Your task to perform on an android device: What's the weather going to be tomorrow? Image 0: 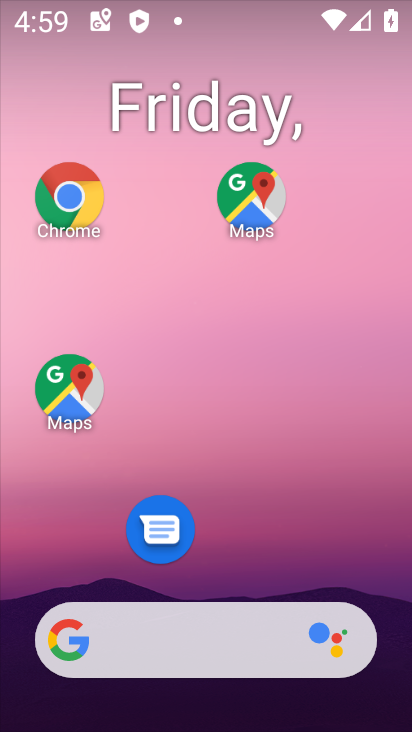
Step 0: click (203, 641)
Your task to perform on an android device: What's the weather going to be tomorrow? Image 1: 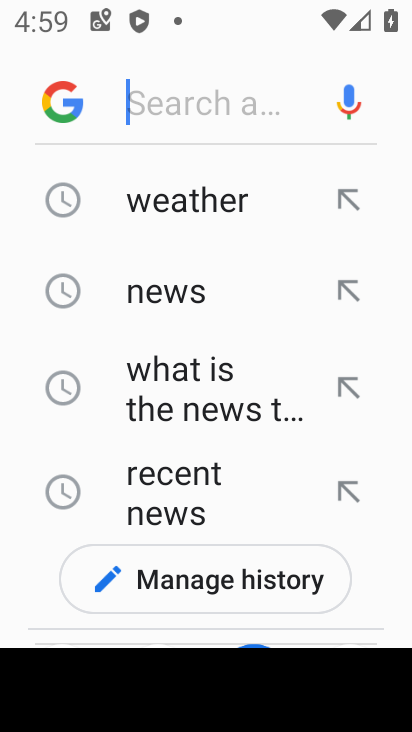
Step 1: click (212, 202)
Your task to perform on an android device: What's the weather going to be tomorrow? Image 2: 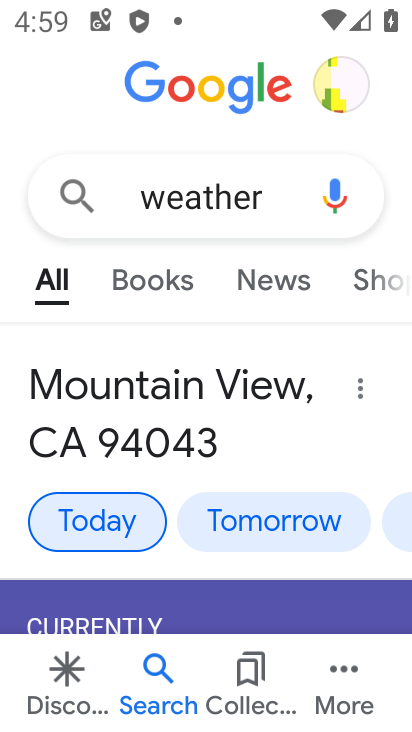
Step 2: drag from (299, 590) to (327, 305)
Your task to perform on an android device: What's the weather going to be tomorrow? Image 3: 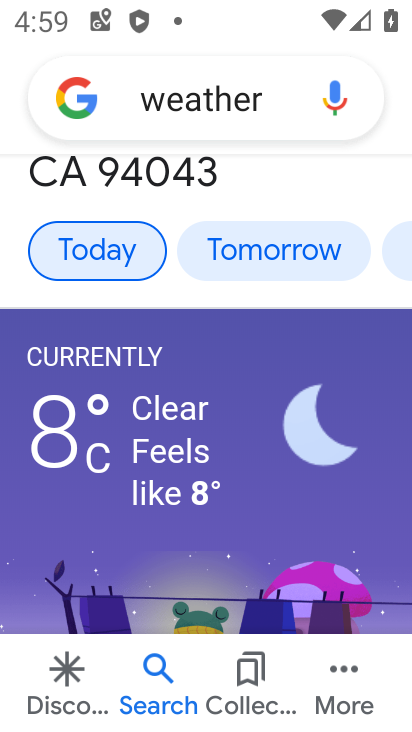
Step 3: click (279, 245)
Your task to perform on an android device: What's the weather going to be tomorrow? Image 4: 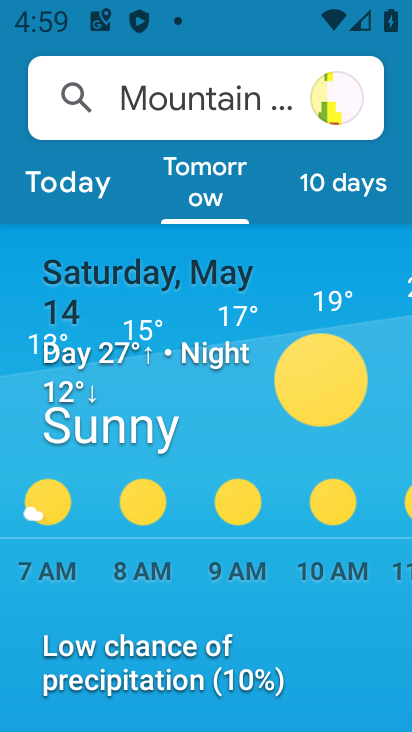
Step 4: task complete